Your task to perform on an android device: Go to ESPN.com Image 0: 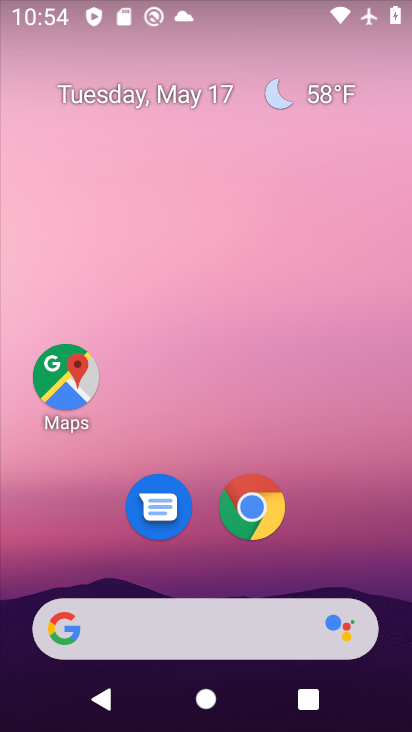
Step 0: drag from (345, 556) to (194, 37)
Your task to perform on an android device: Go to ESPN.com Image 1: 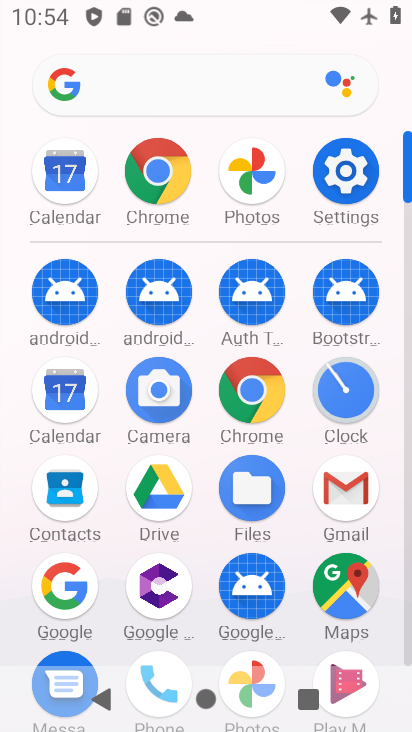
Step 1: click (154, 168)
Your task to perform on an android device: Go to ESPN.com Image 2: 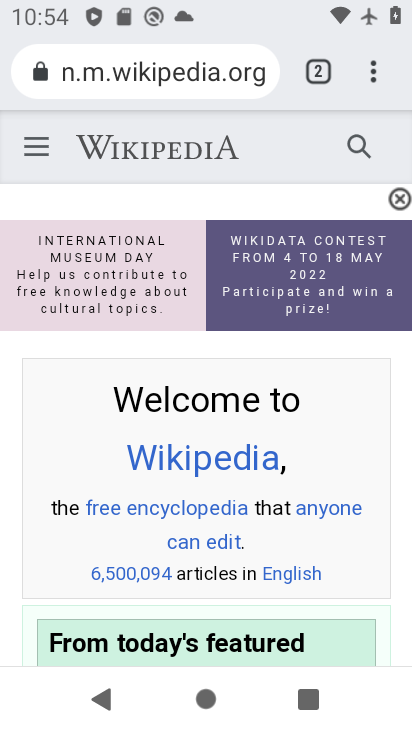
Step 2: click (372, 69)
Your task to perform on an android device: Go to ESPN.com Image 3: 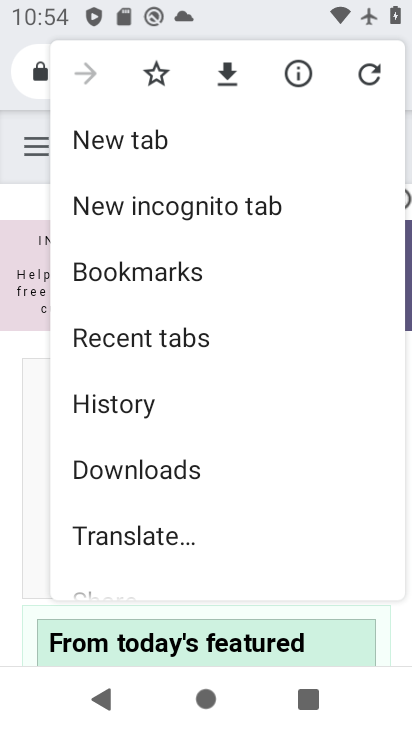
Step 3: click (154, 137)
Your task to perform on an android device: Go to ESPN.com Image 4: 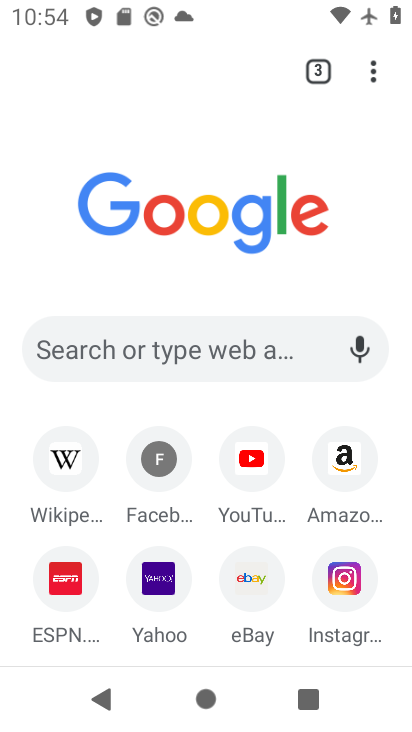
Step 4: click (64, 569)
Your task to perform on an android device: Go to ESPN.com Image 5: 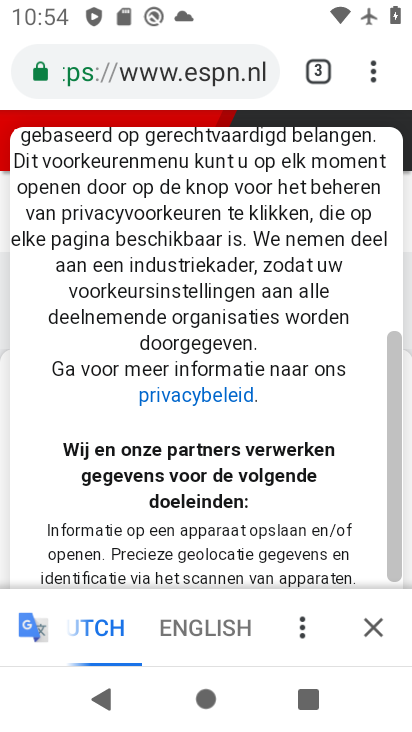
Step 5: task complete